Your task to perform on an android device: delete a single message in the gmail app Image 0: 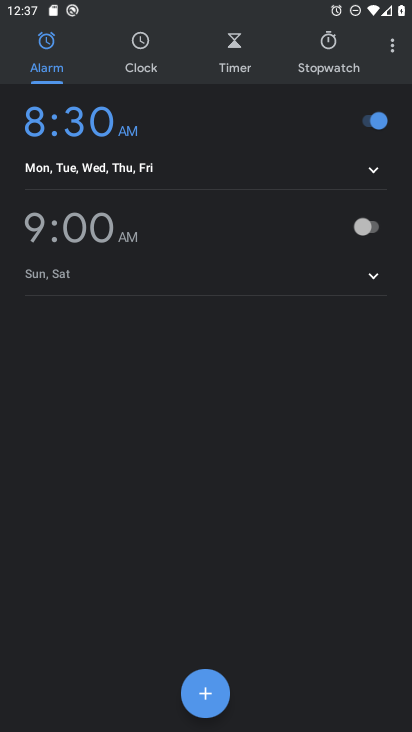
Step 0: press home button
Your task to perform on an android device: delete a single message in the gmail app Image 1: 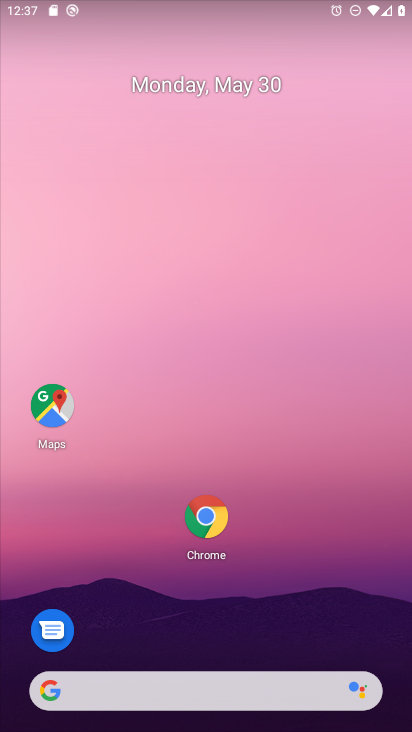
Step 1: drag from (167, 691) to (253, 125)
Your task to perform on an android device: delete a single message in the gmail app Image 2: 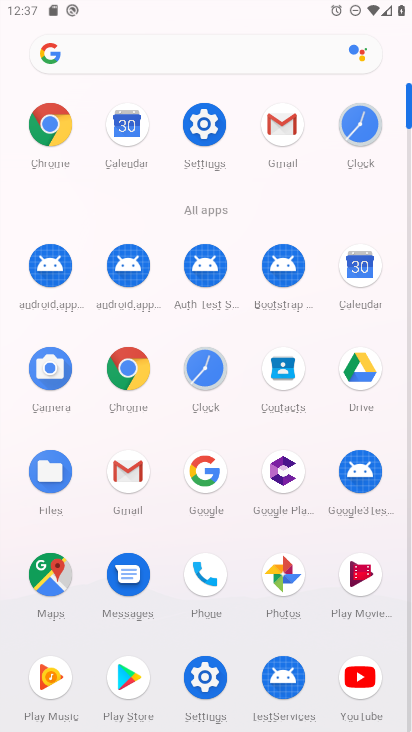
Step 2: click (279, 129)
Your task to perform on an android device: delete a single message in the gmail app Image 3: 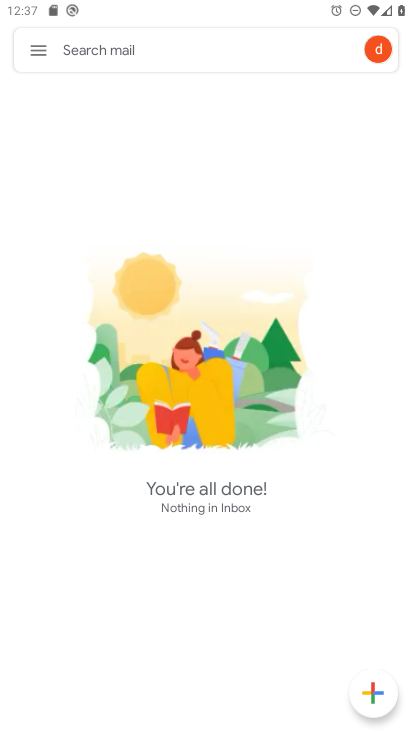
Step 3: task complete